Your task to perform on an android device: Open calendar and show me the second week of next month Image 0: 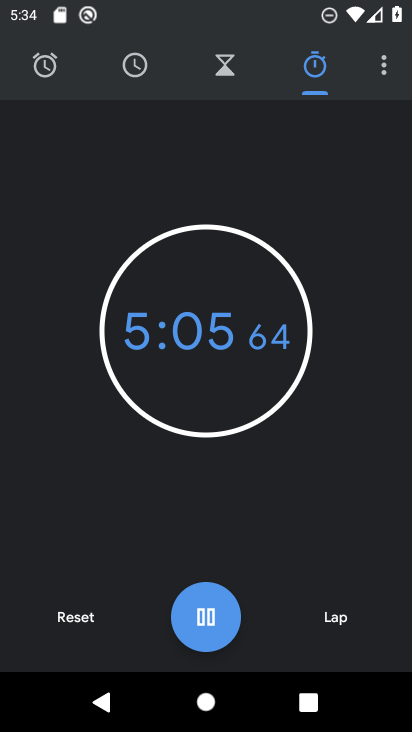
Step 0: press home button
Your task to perform on an android device: Open calendar and show me the second week of next month Image 1: 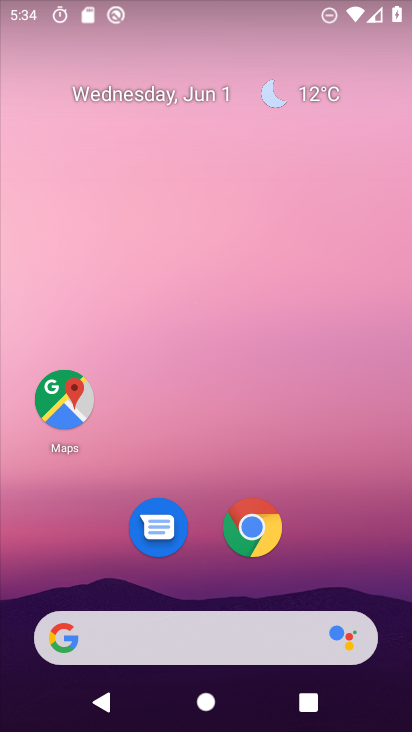
Step 1: click (165, 94)
Your task to perform on an android device: Open calendar and show me the second week of next month Image 2: 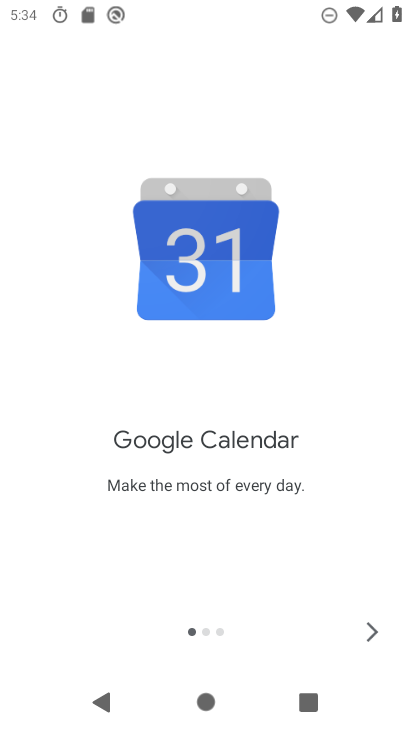
Step 2: click (377, 643)
Your task to perform on an android device: Open calendar and show me the second week of next month Image 3: 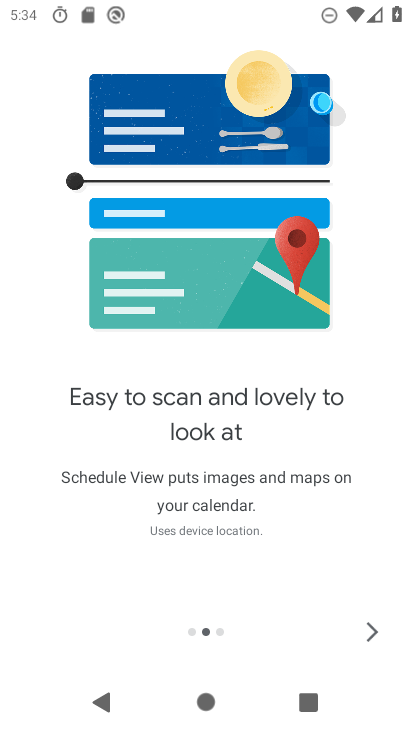
Step 3: click (377, 643)
Your task to perform on an android device: Open calendar and show me the second week of next month Image 4: 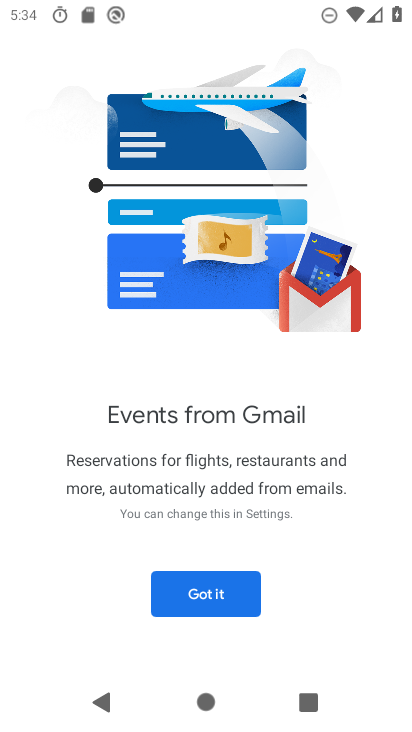
Step 4: click (209, 590)
Your task to perform on an android device: Open calendar and show me the second week of next month Image 5: 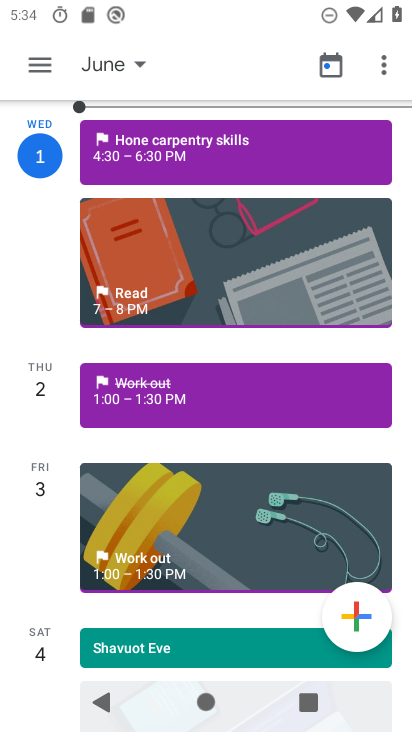
Step 5: click (127, 61)
Your task to perform on an android device: Open calendar and show me the second week of next month Image 6: 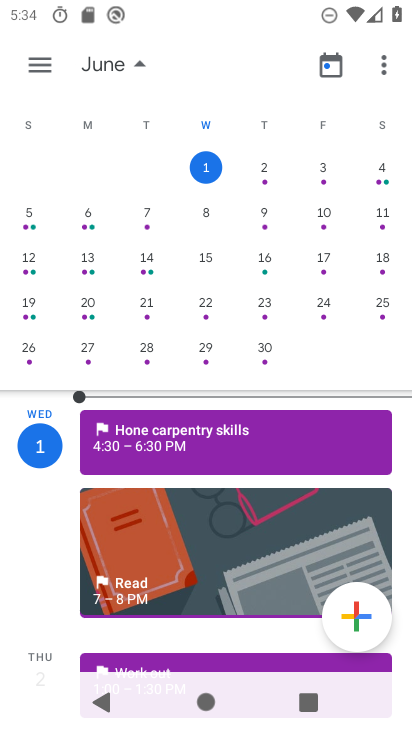
Step 6: drag from (343, 366) to (25, 274)
Your task to perform on an android device: Open calendar and show me the second week of next month Image 7: 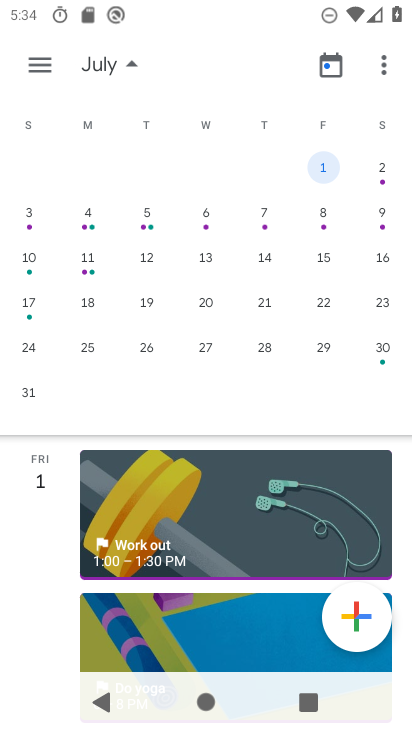
Step 7: click (264, 211)
Your task to perform on an android device: Open calendar and show me the second week of next month Image 8: 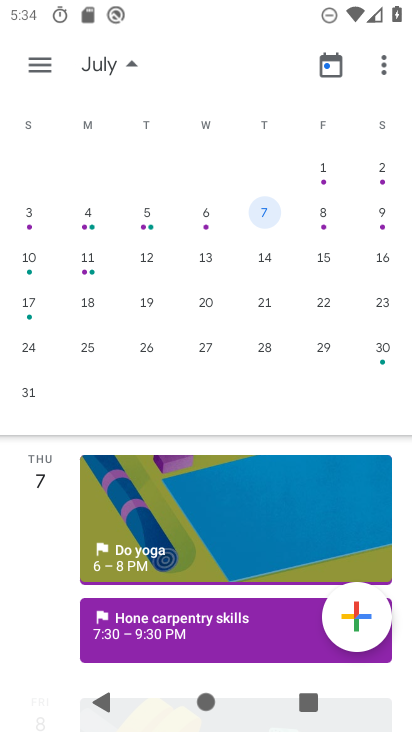
Step 8: task complete